Your task to perform on an android device: visit the assistant section in the google photos Image 0: 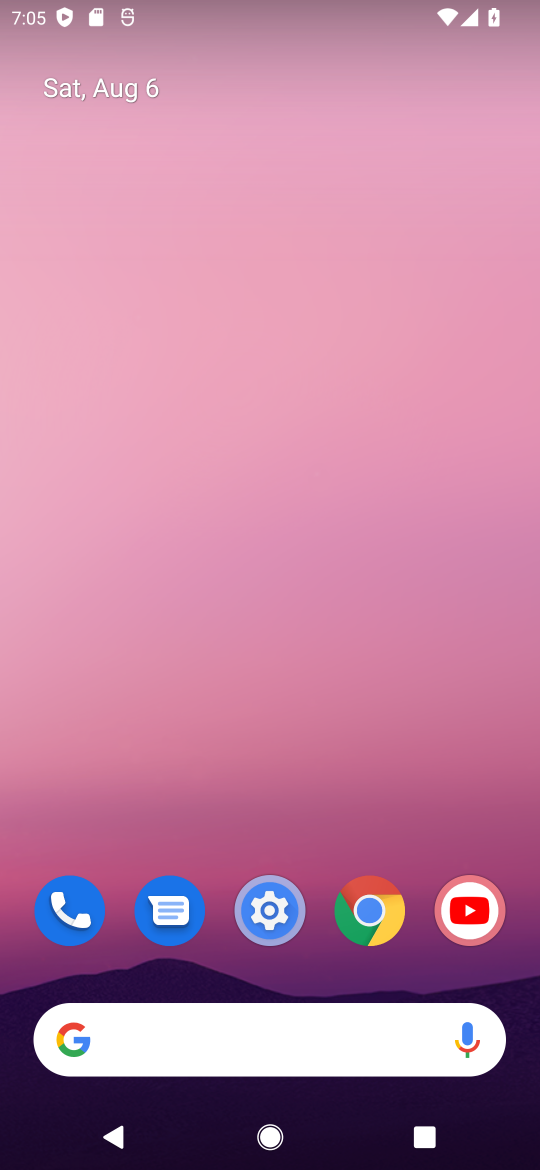
Step 0: drag from (471, 640) to (434, 185)
Your task to perform on an android device: visit the assistant section in the google photos Image 1: 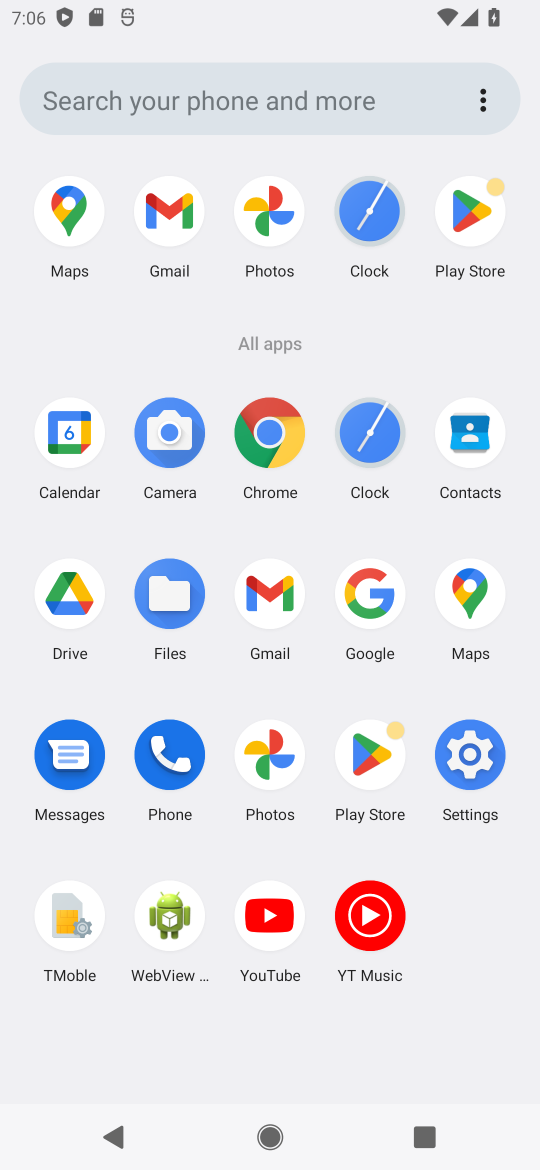
Step 1: click (263, 708)
Your task to perform on an android device: visit the assistant section in the google photos Image 2: 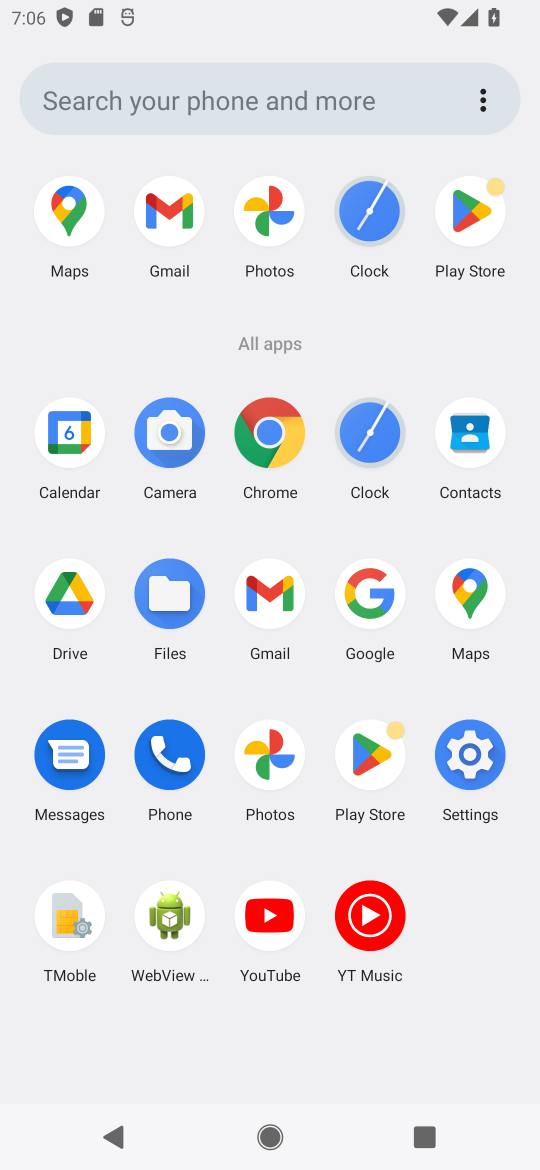
Step 2: click (258, 745)
Your task to perform on an android device: visit the assistant section in the google photos Image 3: 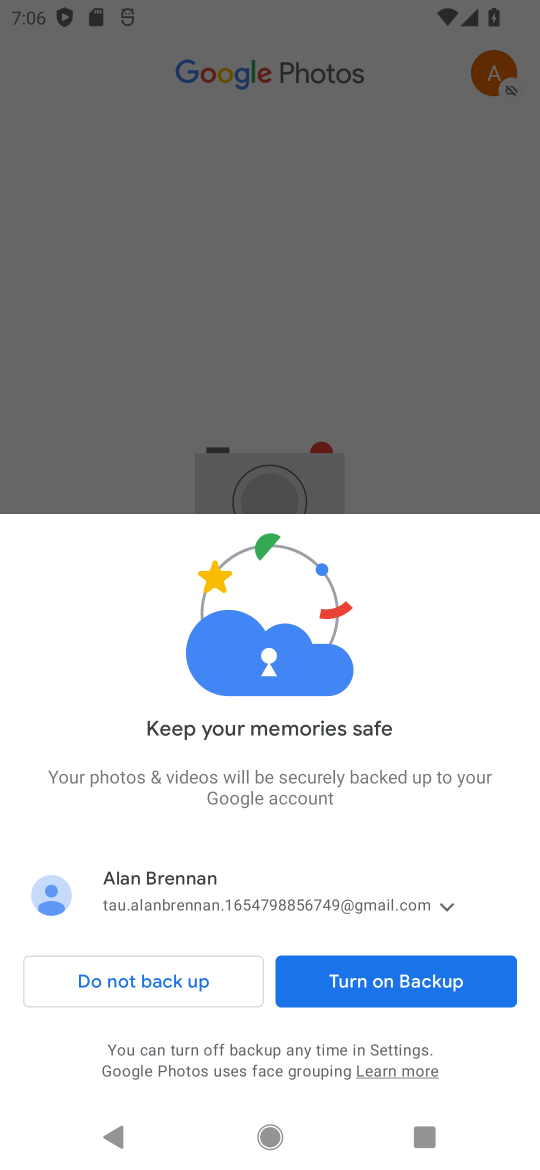
Step 3: click (421, 987)
Your task to perform on an android device: visit the assistant section in the google photos Image 4: 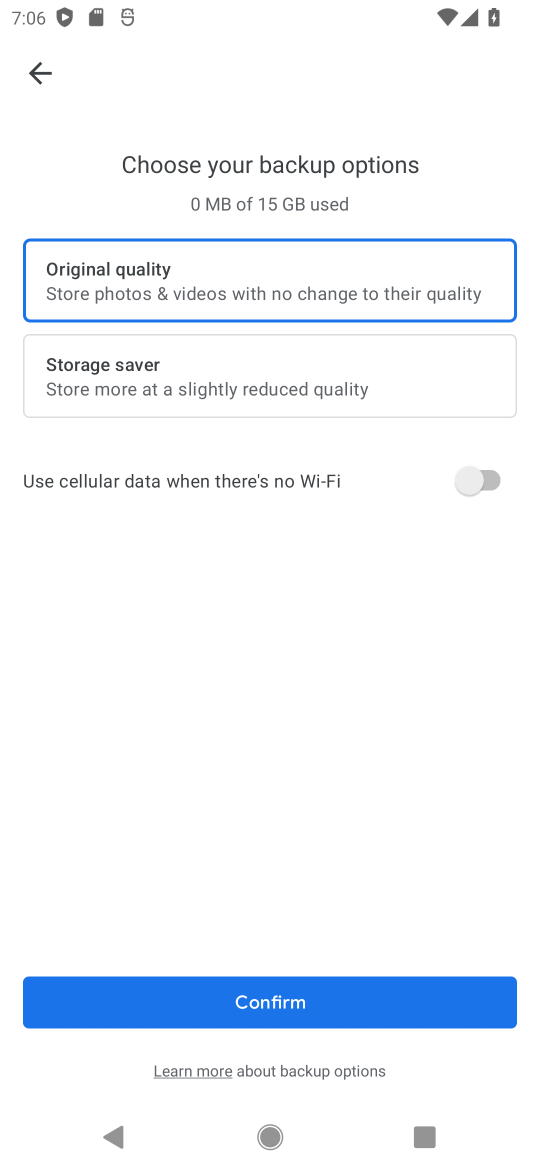
Step 4: click (242, 1011)
Your task to perform on an android device: visit the assistant section in the google photos Image 5: 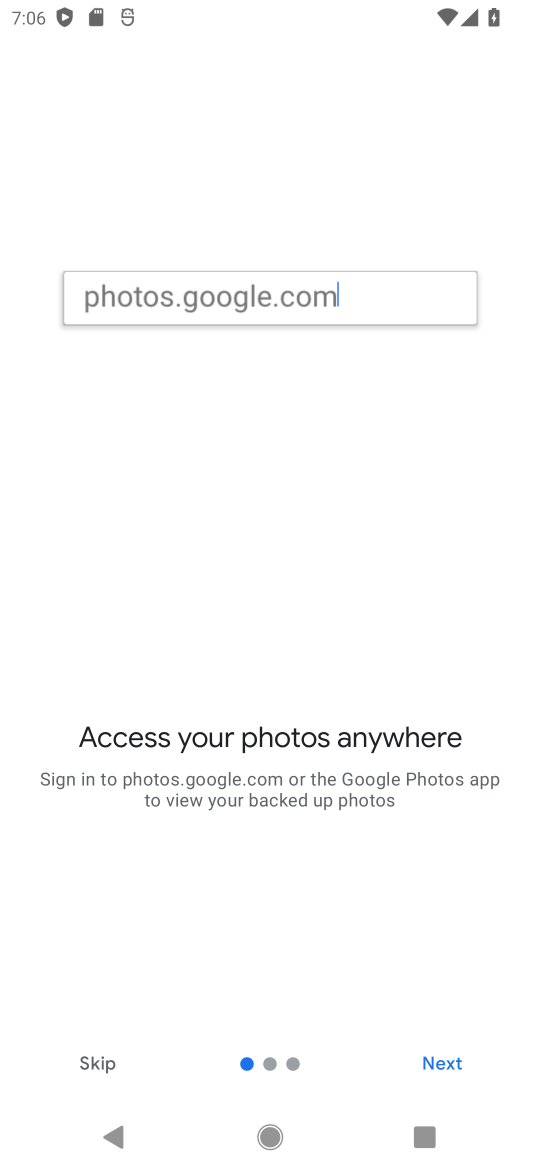
Step 5: click (427, 1056)
Your task to perform on an android device: visit the assistant section in the google photos Image 6: 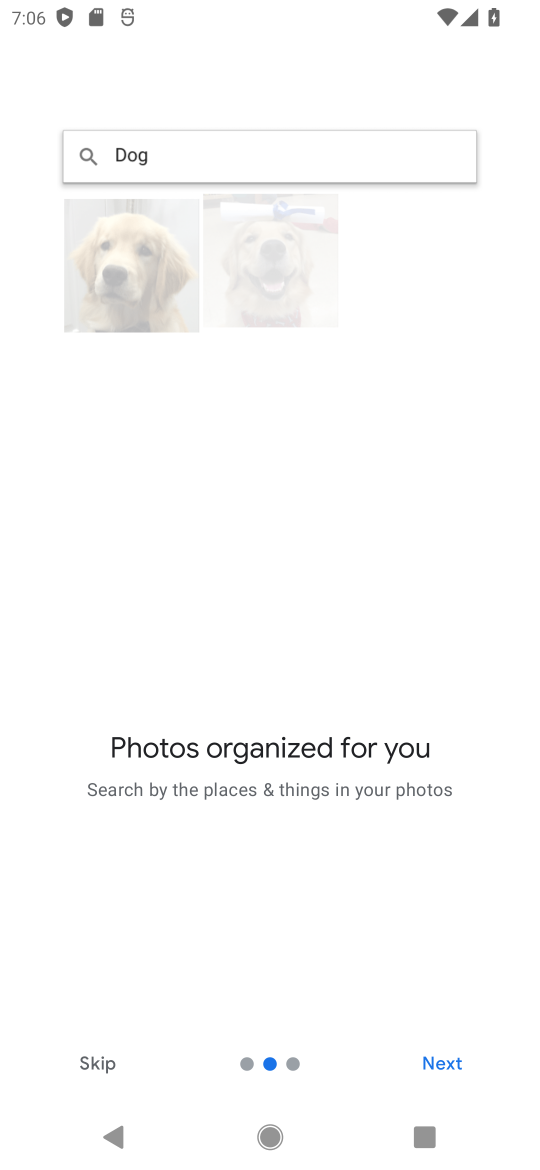
Step 6: click (427, 1056)
Your task to perform on an android device: visit the assistant section in the google photos Image 7: 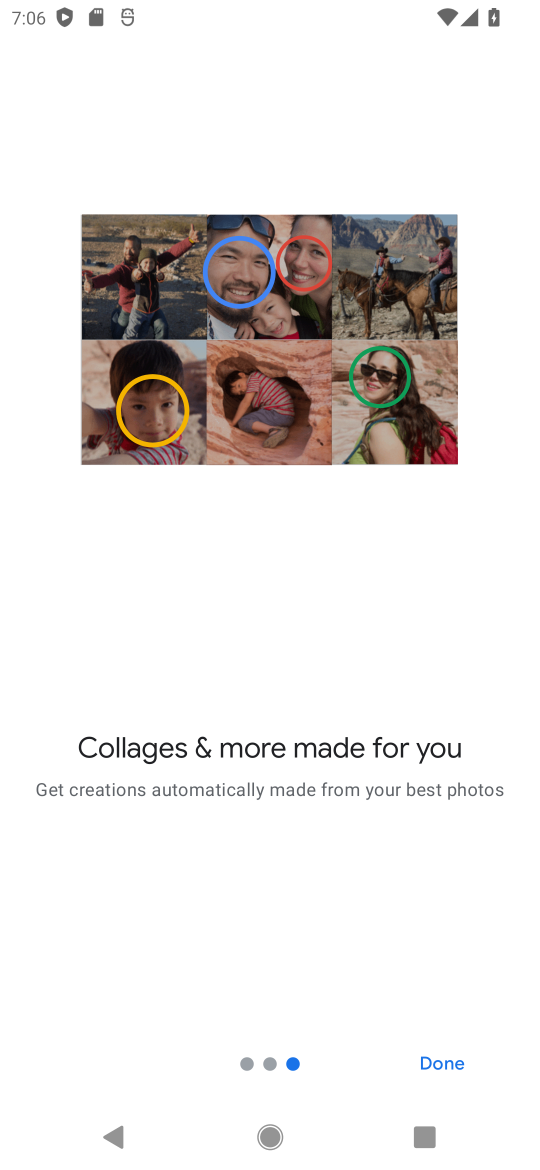
Step 7: click (427, 1056)
Your task to perform on an android device: visit the assistant section in the google photos Image 8: 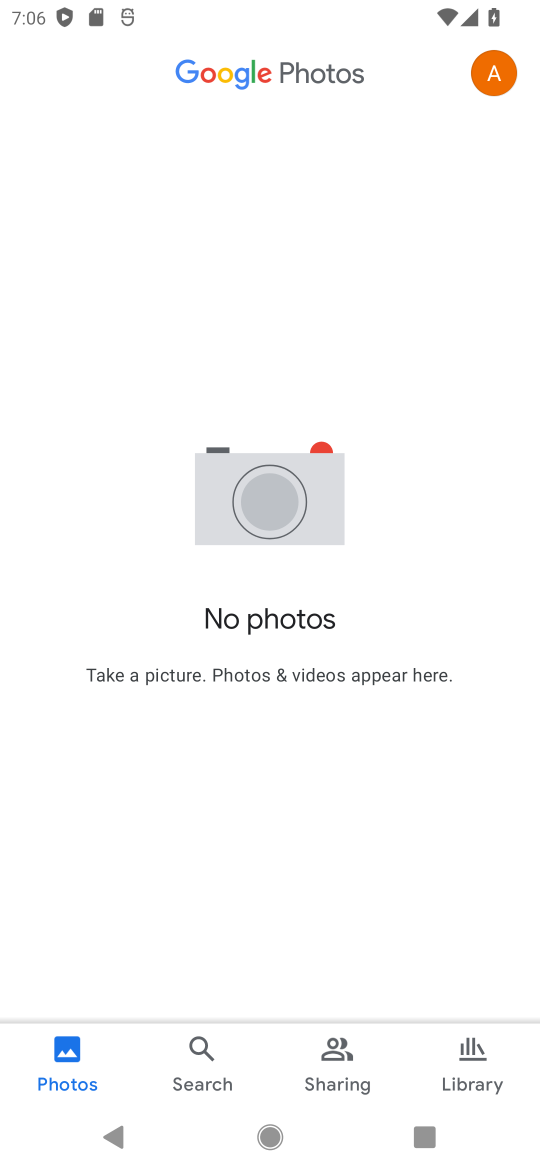
Step 8: task complete